Your task to perform on an android device: Go to location settings Image 0: 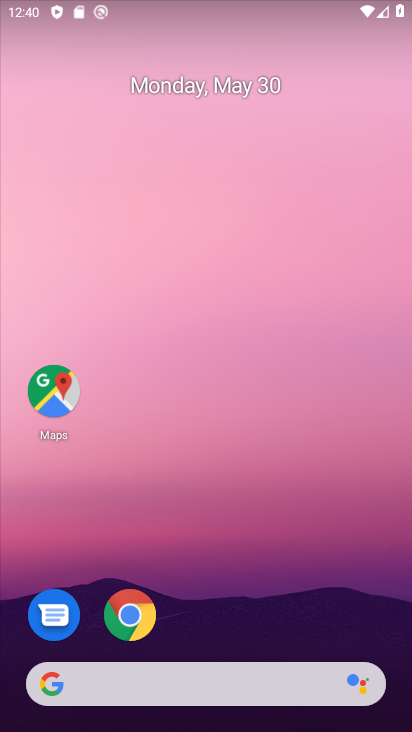
Step 0: drag from (129, 729) to (165, 56)
Your task to perform on an android device: Go to location settings Image 1: 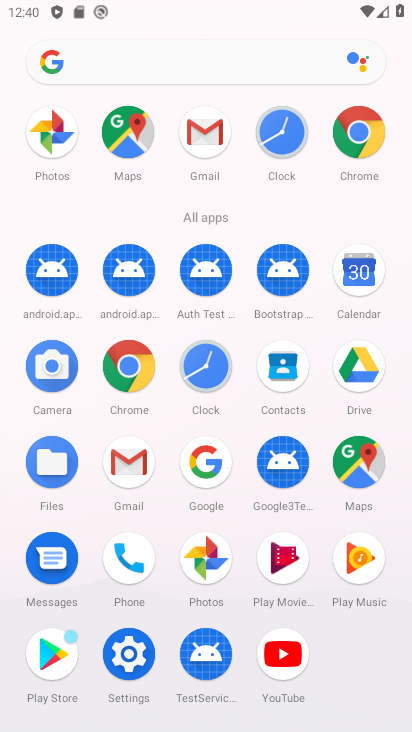
Step 1: click (135, 654)
Your task to perform on an android device: Go to location settings Image 2: 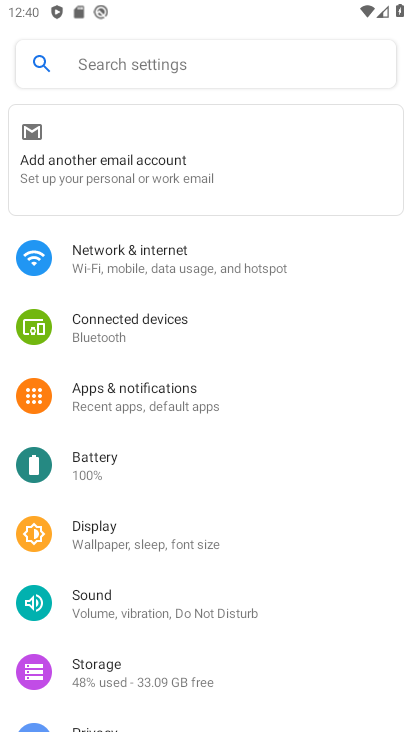
Step 2: drag from (283, 689) to (247, 236)
Your task to perform on an android device: Go to location settings Image 3: 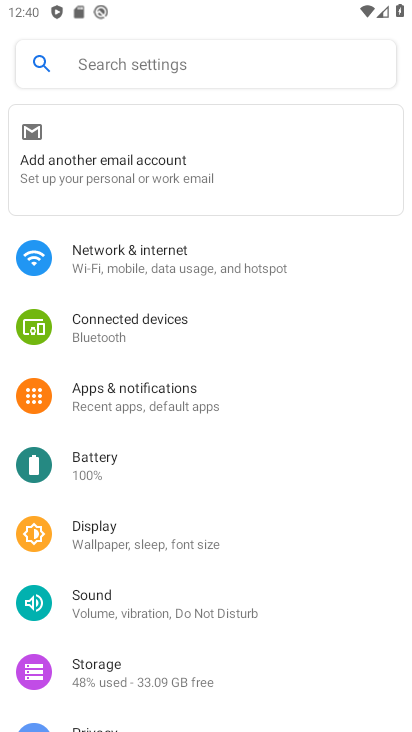
Step 3: drag from (123, 693) to (139, 279)
Your task to perform on an android device: Go to location settings Image 4: 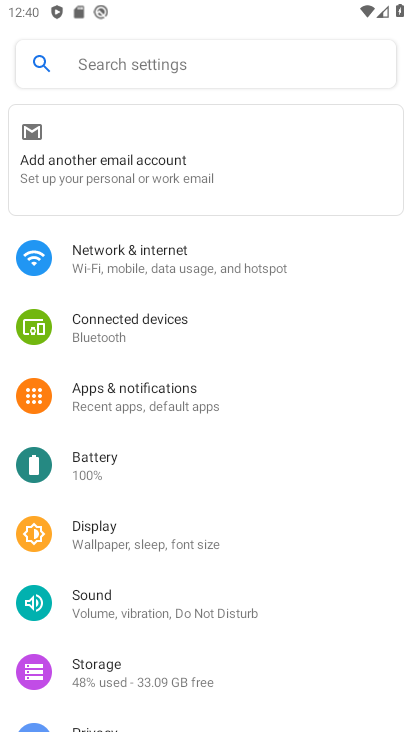
Step 4: drag from (292, 693) to (249, 222)
Your task to perform on an android device: Go to location settings Image 5: 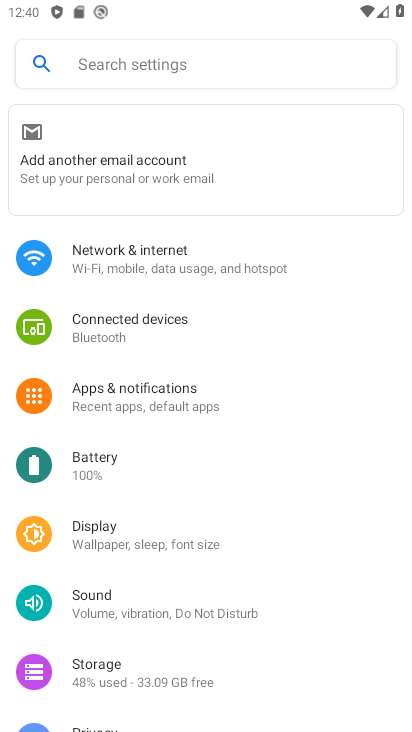
Step 5: drag from (291, 706) to (319, 190)
Your task to perform on an android device: Go to location settings Image 6: 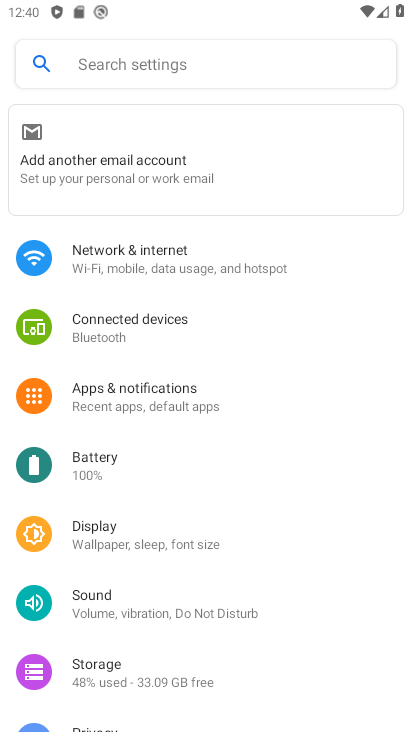
Step 6: drag from (277, 700) to (239, 97)
Your task to perform on an android device: Go to location settings Image 7: 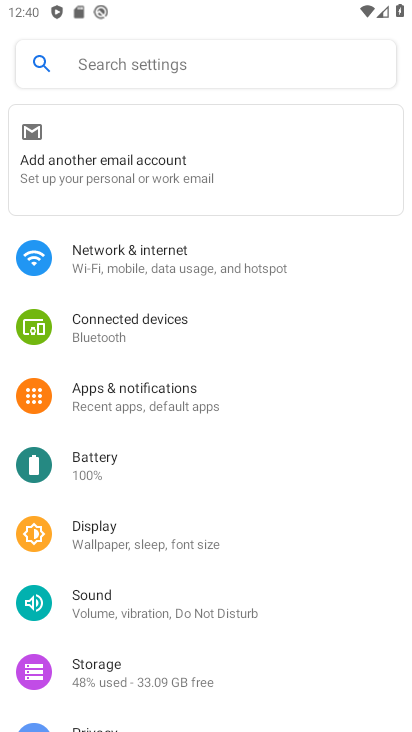
Step 7: drag from (204, 707) to (261, 195)
Your task to perform on an android device: Go to location settings Image 8: 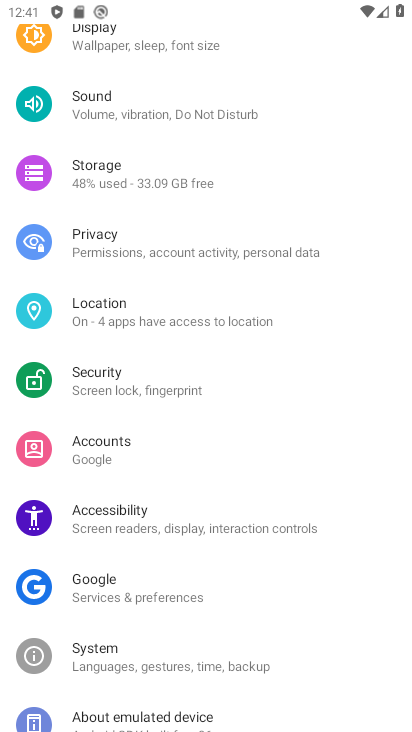
Step 8: click (219, 320)
Your task to perform on an android device: Go to location settings Image 9: 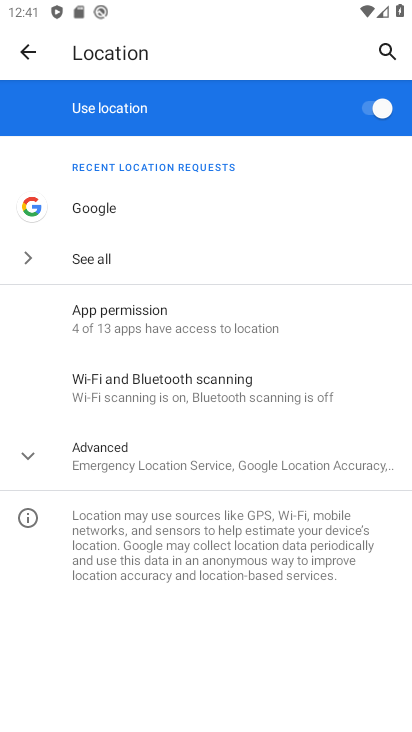
Step 9: task complete